Your task to perform on an android device: Set the phone to "Do not disturb". Image 0: 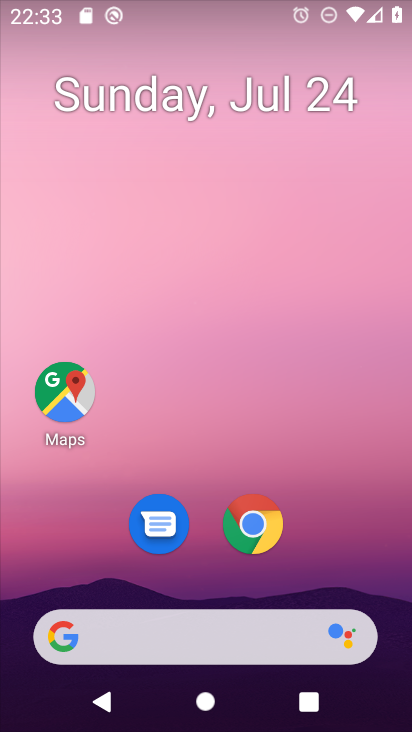
Step 0: press home button
Your task to perform on an android device: Set the phone to "Do not disturb". Image 1: 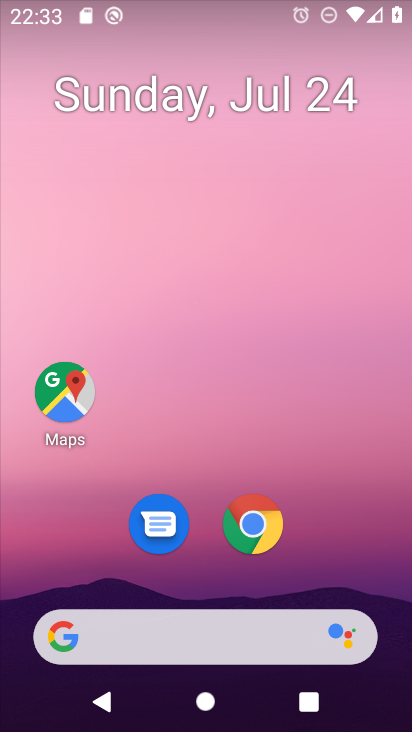
Step 1: drag from (173, 631) to (225, 141)
Your task to perform on an android device: Set the phone to "Do not disturb". Image 2: 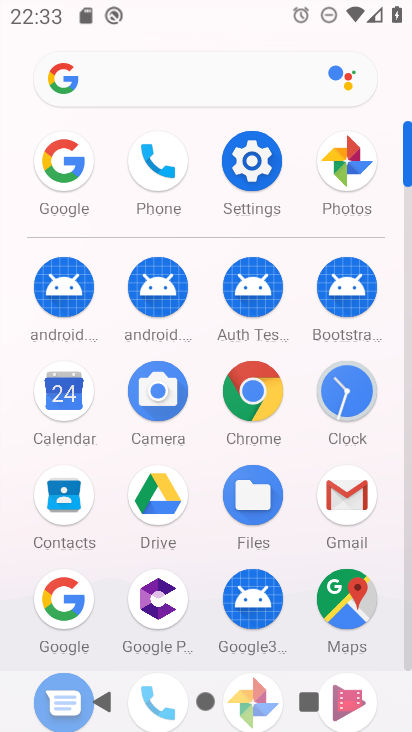
Step 2: click (249, 169)
Your task to perform on an android device: Set the phone to "Do not disturb". Image 3: 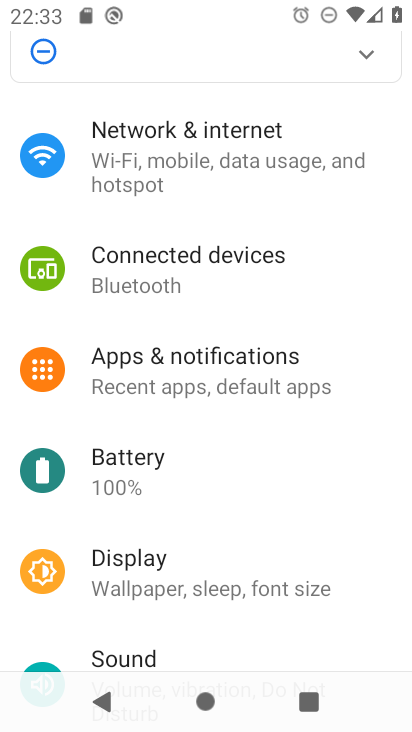
Step 3: drag from (296, 523) to (302, 116)
Your task to perform on an android device: Set the phone to "Do not disturb". Image 4: 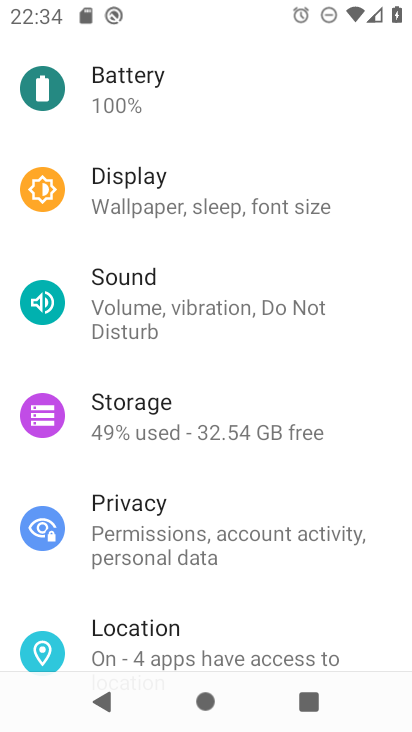
Step 4: click (209, 313)
Your task to perform on an android device: Set the phone to "Do not disturb". Image 5: 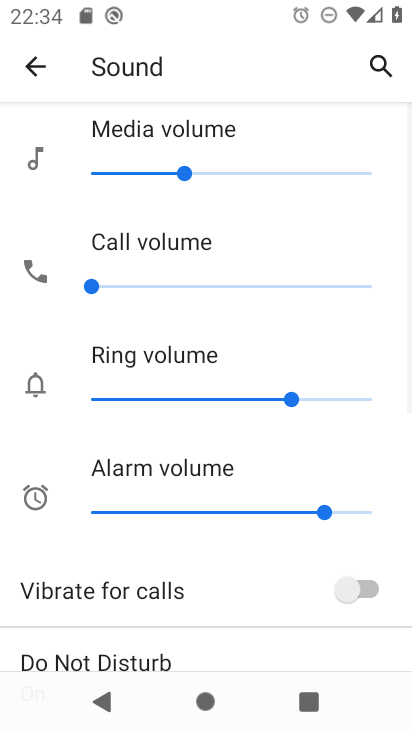
Step 5: task complete